Your task to perform on an android device: allow cookies in the chrome app Image 0: 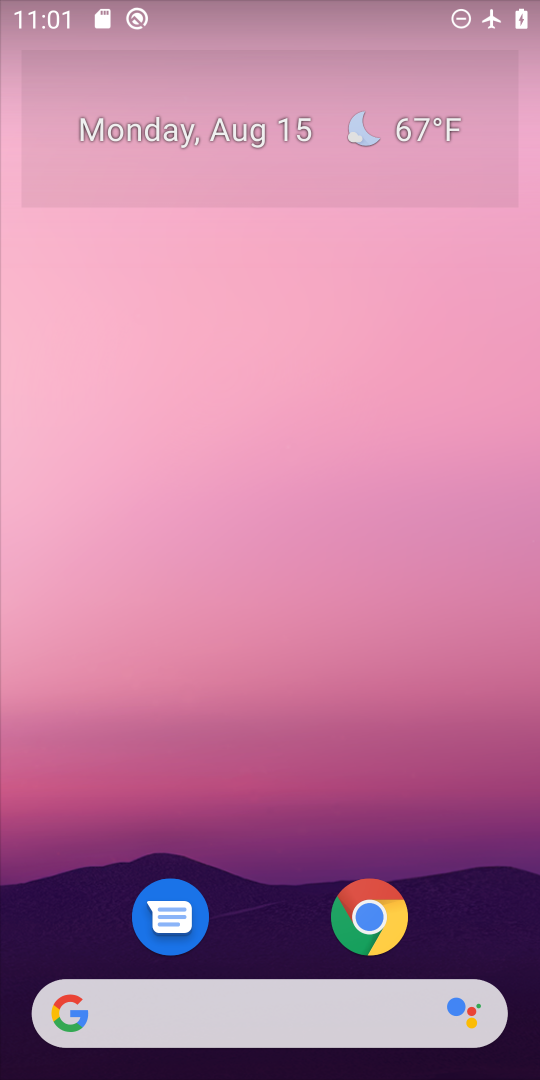
Step 0: click (370, 891)
Your task to perform on an android device: allow cookies in the chrome app Image 1: 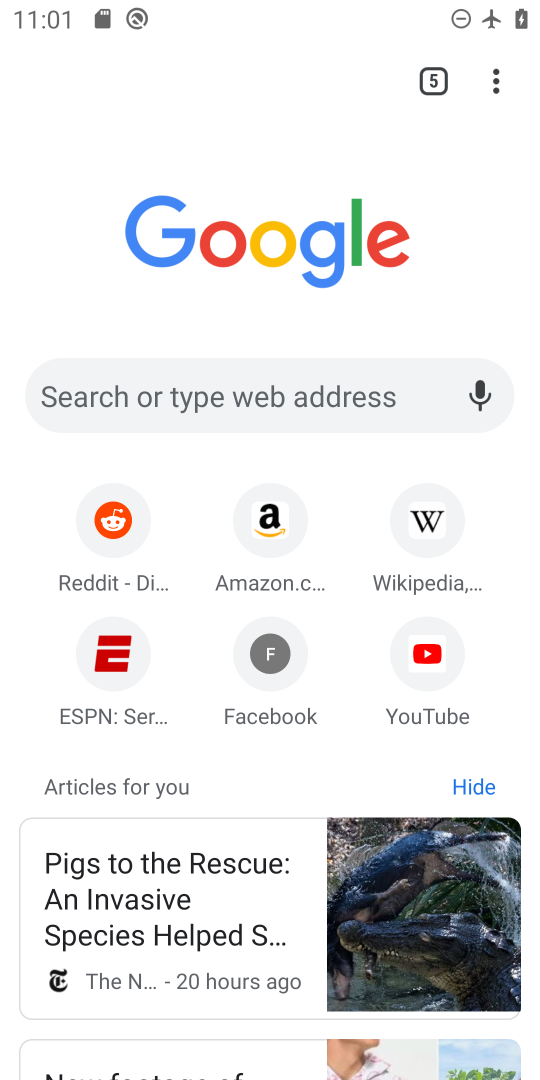
Step 1: click (494, 85)
Your task to perform on an android device: allow cookies in the chrome app Image 2: 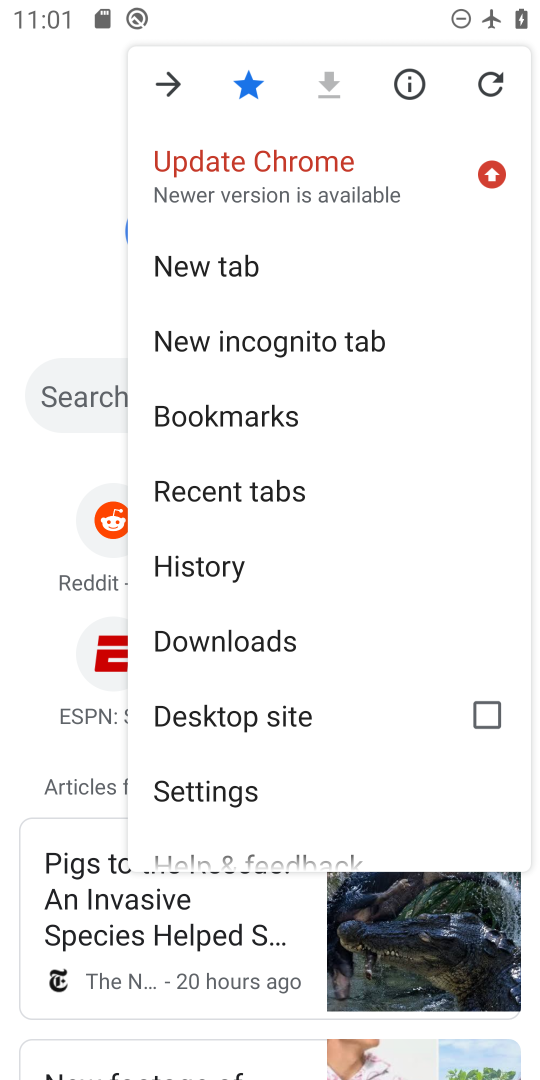
Step 2: click (228, 788)
Your task to perform on an android device: allow cookies in the chrome app Image 3: 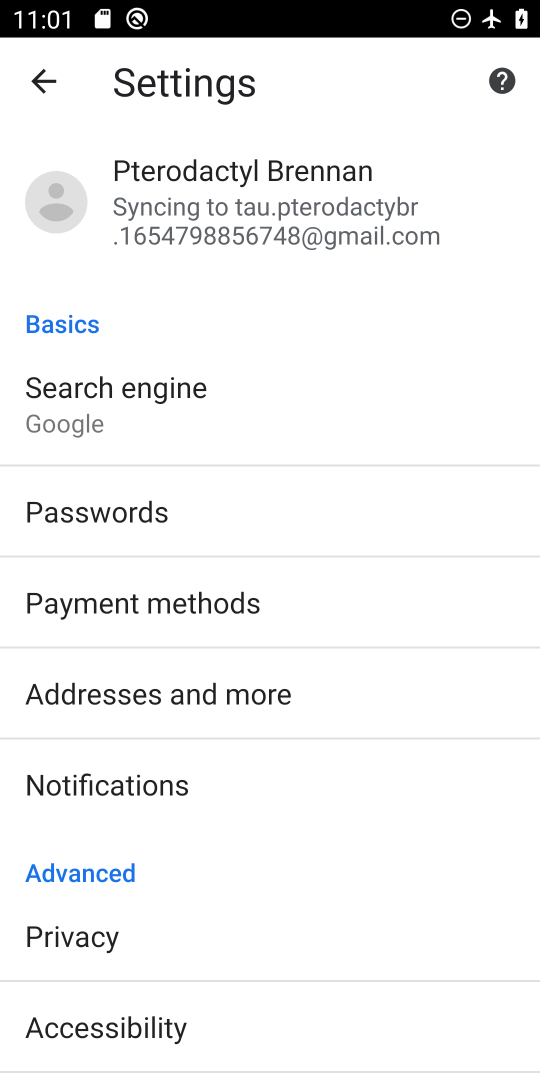
Step 3: drag from (274, 867) to (390, 391)
Your task to perform on an android device: allow cookies in the chrome app Image 4: 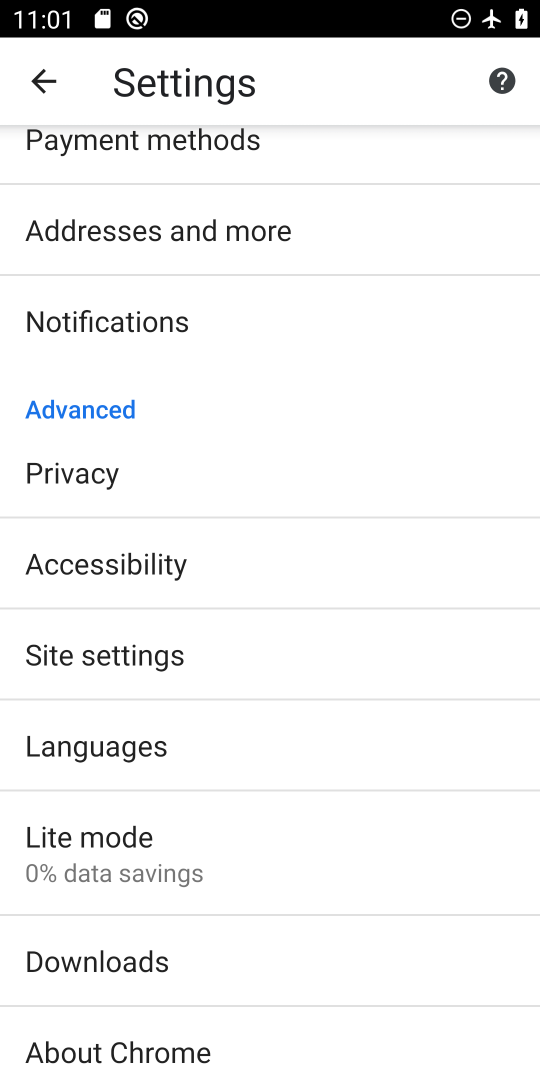
Step 4: click (258, 656)
Your task to perform on an android device: allow cookies in the chrome app Image 5: 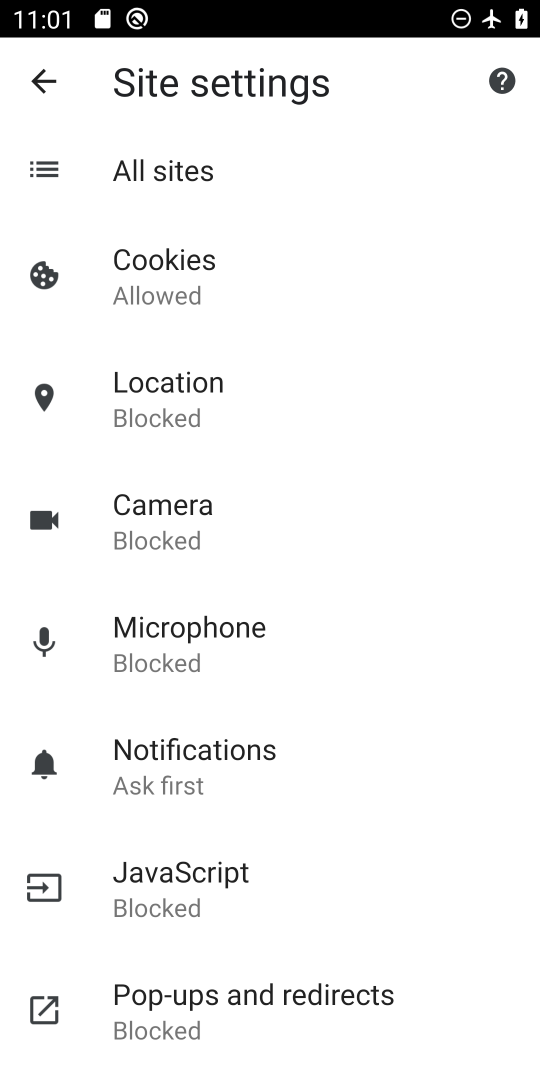
Step 5: click (233, 274)
Your task to perform on an android device: allow cookies in the chrome app Image 6: 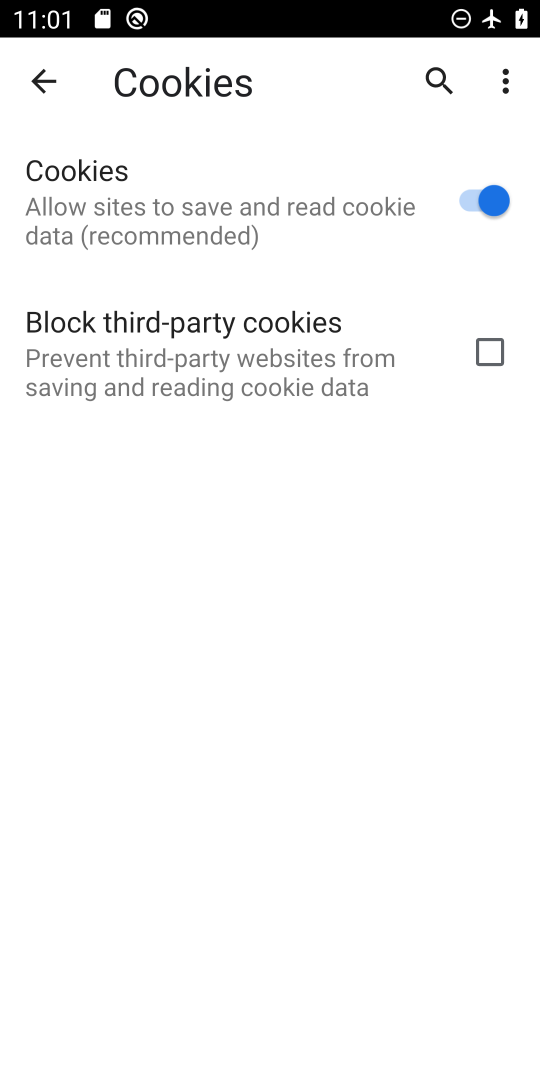
Step 6: task complete